Your task to perform on an android device: move a message to another label in the gmail app Image 0: 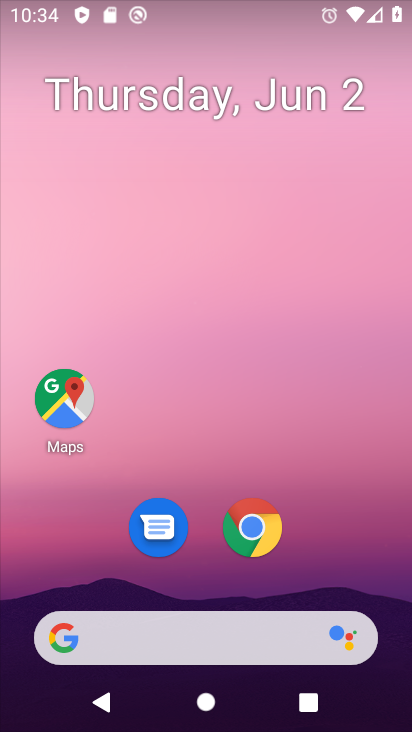
Step 0: drag from (230, 630) to (260, 75)
Your task to perform on an android device: move a message to another label in the gmail app Image 1: 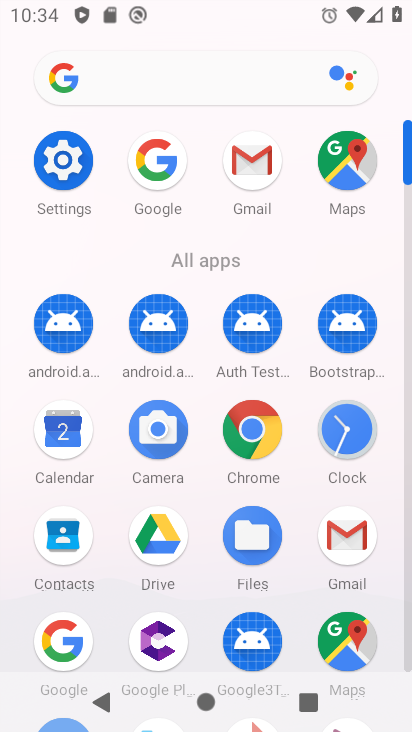
Step 1: click (245, 156)
Your task to perform on an android device: move a message to another label in the gmail app Image 2: 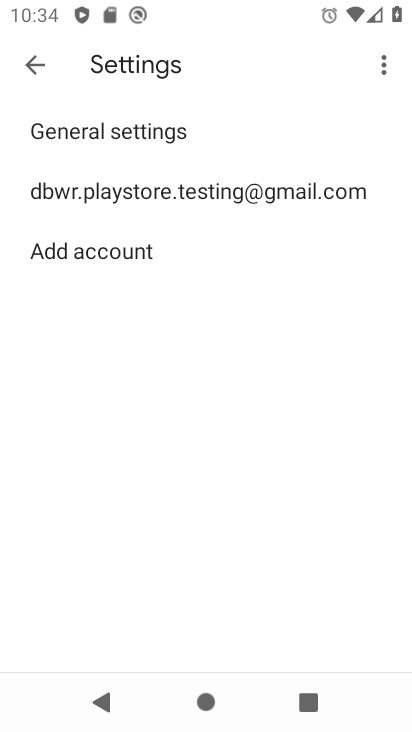
Step 2: click (36, 60)
Your task to perform on an android device: move a message to another label in the gmail app Image 3: 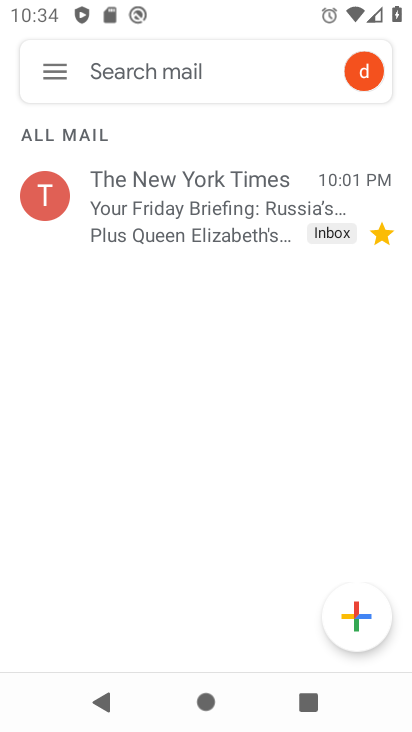
Step 3: click (48, 74)
Your task to perform on an android device: move a message to another label in the gmail app Image 4: 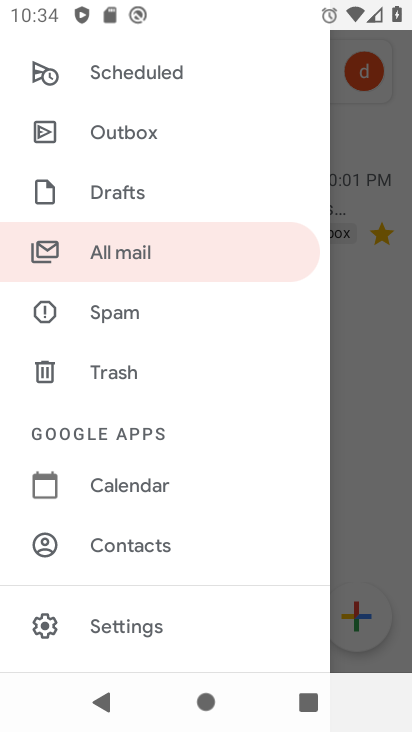
Step 4: drag from (114, 104) to (169, 489)
Your task to perform on an android device: move a message to another label in the gmail app Image 5: 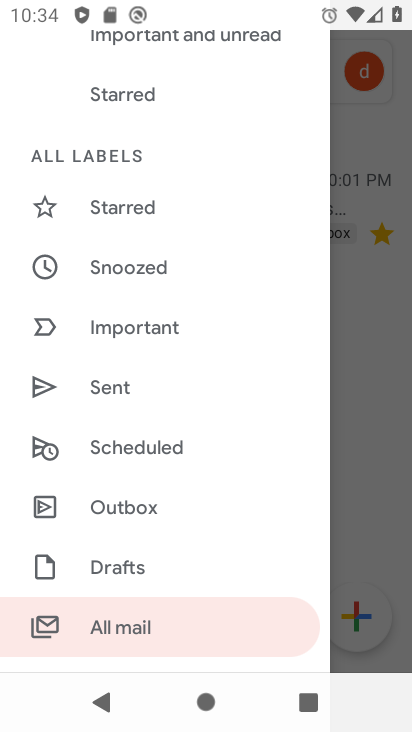
Step 5: drag from (130, 205) to (151, 521)
Your task to perform on an android device: move a message to another label in the gmail app Image 6: 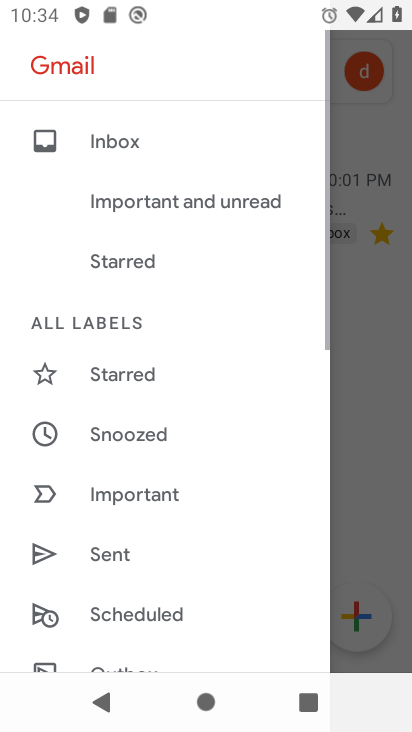
Step 6: click (105, 135)
Your task to perform on an android device: move a message to another label in the gmail app Image 7: 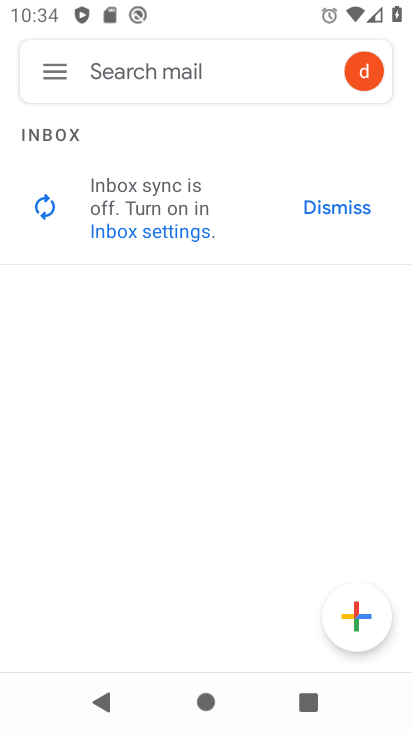
Step 7: click (55, 86)
Your task to perform on an android device: move a message to another label in the gmail app Image 8: 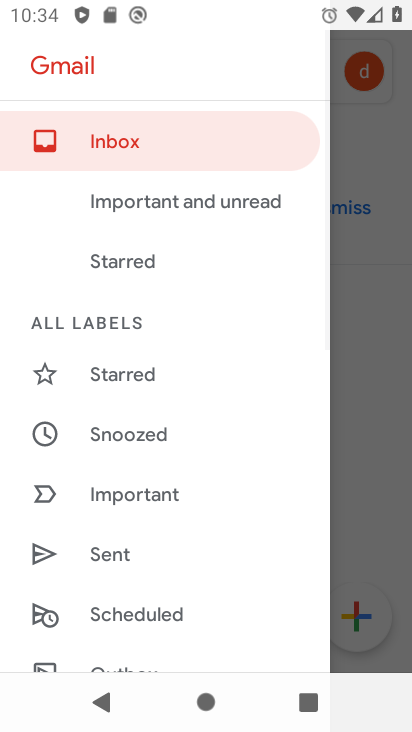
Step 8: drag from (175, 529) to (161, 205)
Your task to perform on an android device: move a message to another label in the gmail app Image 9: 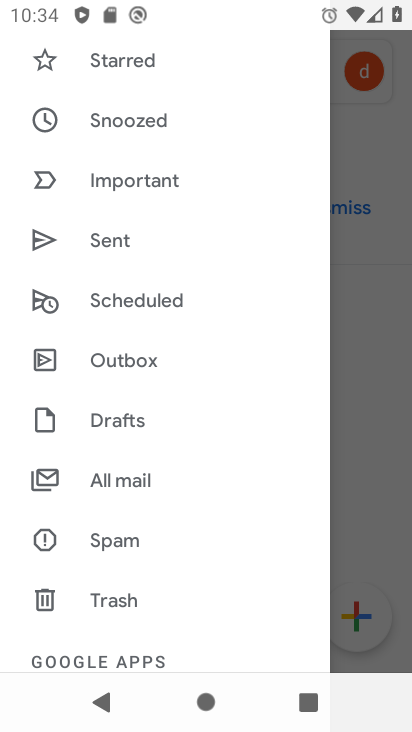
Step 9: click (115, 485)
Your task to perform on an android device: move a message to another label in the gmail app Image 10: 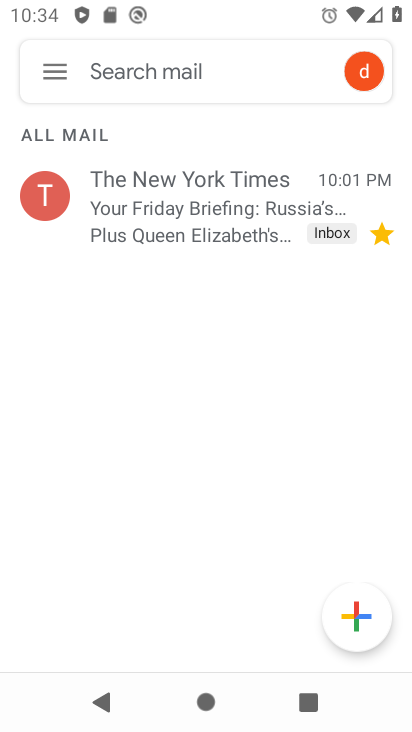
Step 10: click (41, 202)
Your task to perform on an android device: move a message to another label in the gmail app Image 11: 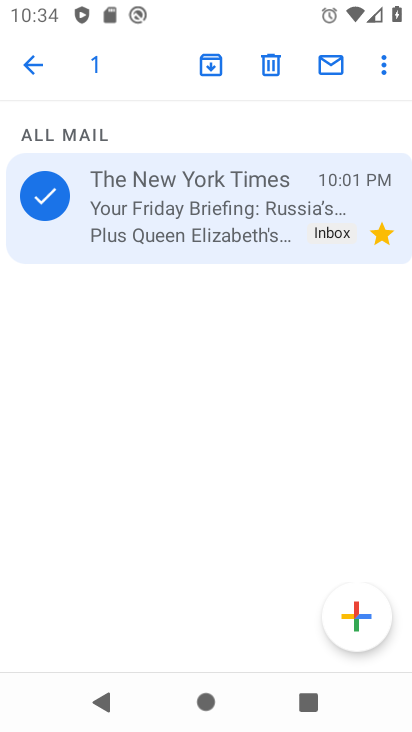
Step 11: click (384, 75)
Your task to perform on an android device: move a message to another label in the gmail app Image 12: 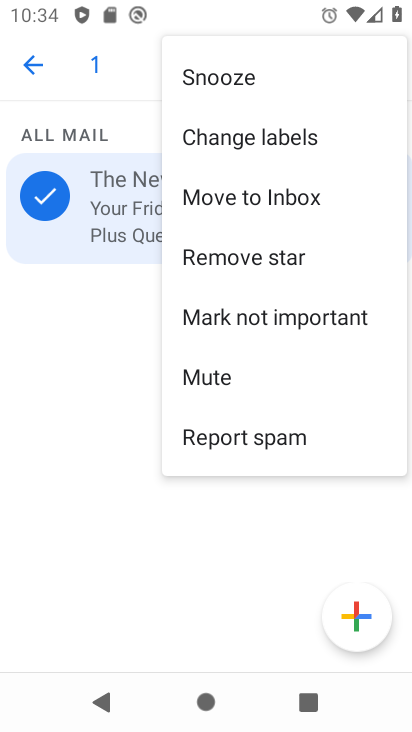
Step 12: click (224, 136)
Your task to perform on an android device: move a message to another label in the gmail app Image 13: 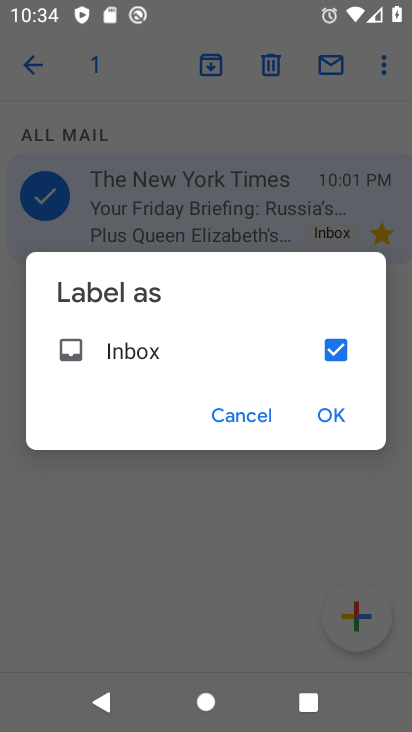
Step 13: click (327, 342)
Your task to perform on an android device: move a message to another label in the gmail app Image 14: 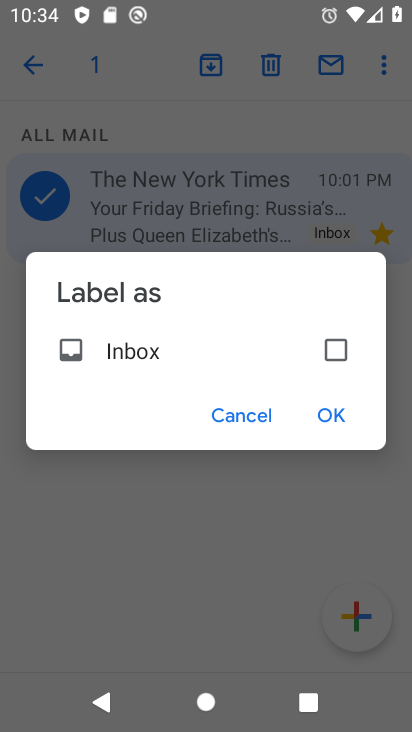
Step 14: click (332, 411)
Your task to perform on an android device: move a message to another label in the gmail app Image 15: 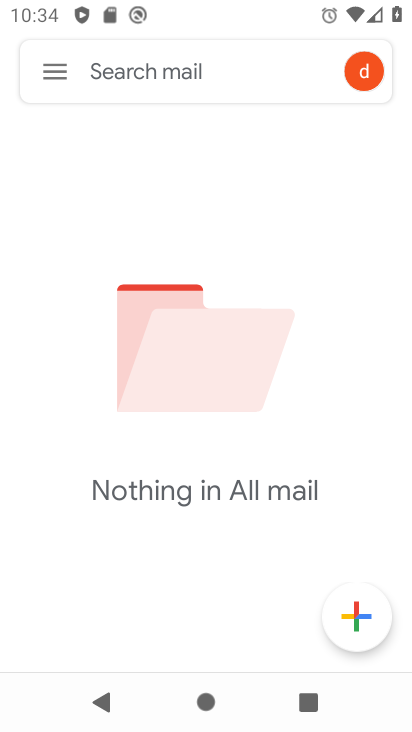
Step 15: task complete